Your task to perform on an android device: Search for seafood restaurants on Google Maps Image 0: 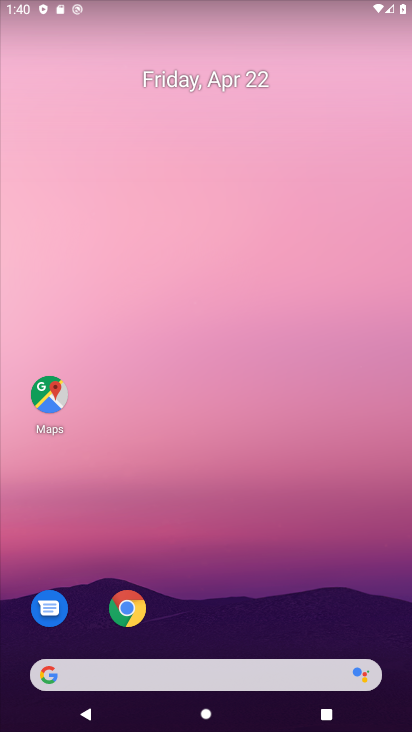
Step 0: click (43, 398)
Your task to perform on an android device: Search for seafood restaurants on Google Maps Image 1: 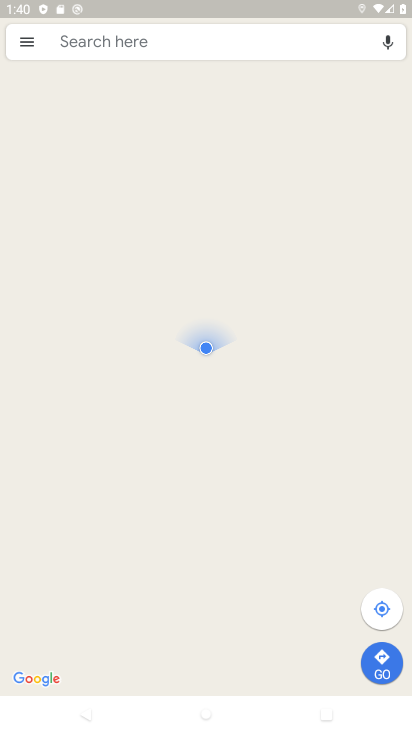
Step 1: click (224, 44)
Your task to perform on an android device: Search for seafood restaurants on Google Maps Image 2: 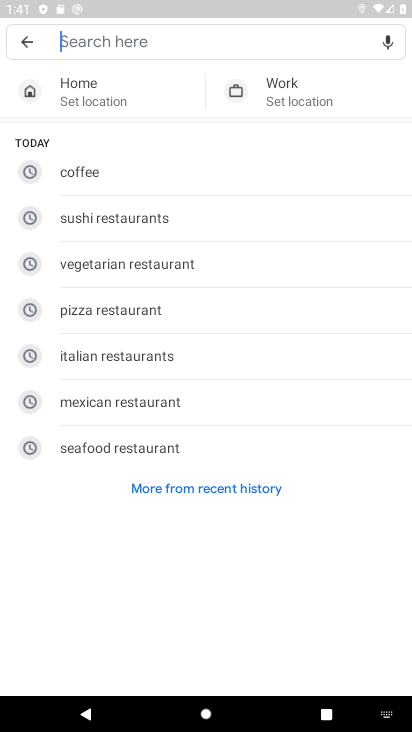
Step 2: click (172, 447)
Your task to perform on an android device: Search for seafood restaurants on Google Maps Image 3: 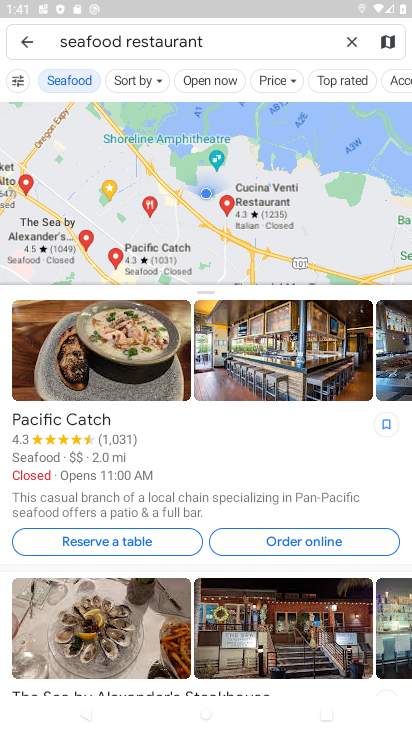
Step 3: task complete